Your task to perform on an android device: Open network settings Image 0: 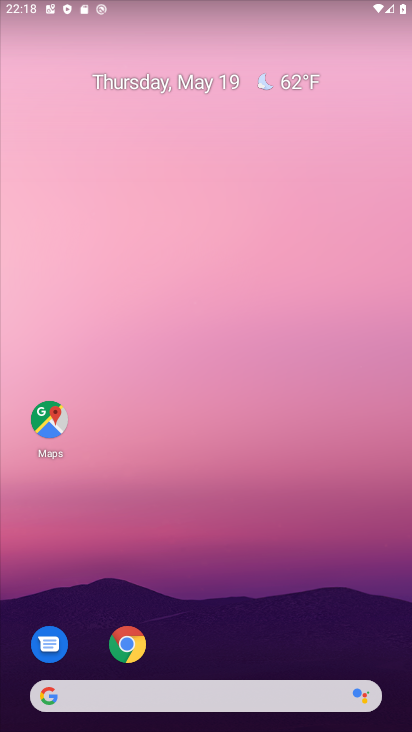
Step 0: drag from (252, 641) to (151, 168)
Your task to perform on an android device: Open network settings Image 1: 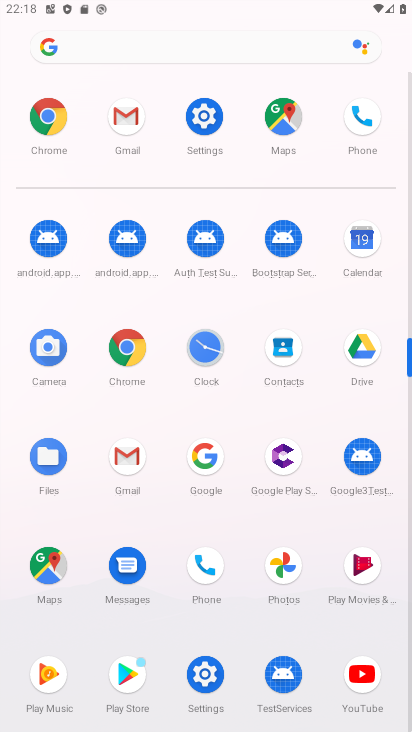
Step 1: click (199, 119)
Your task to perform on an android device: Open network settings Image 2: 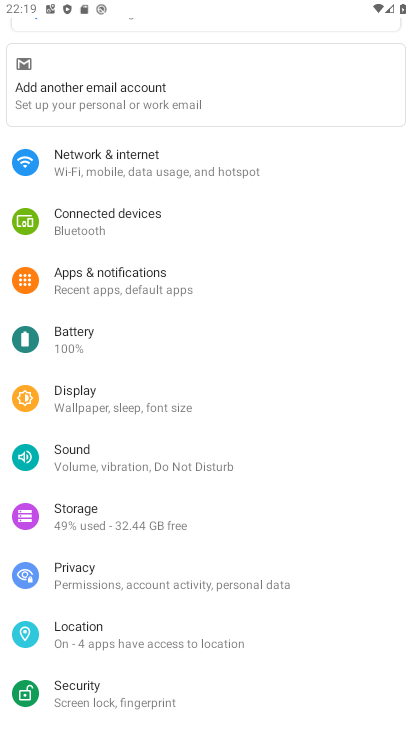
Step 2: click (97, 169)
Your task to perform on an android device: Open network settings Image 3: 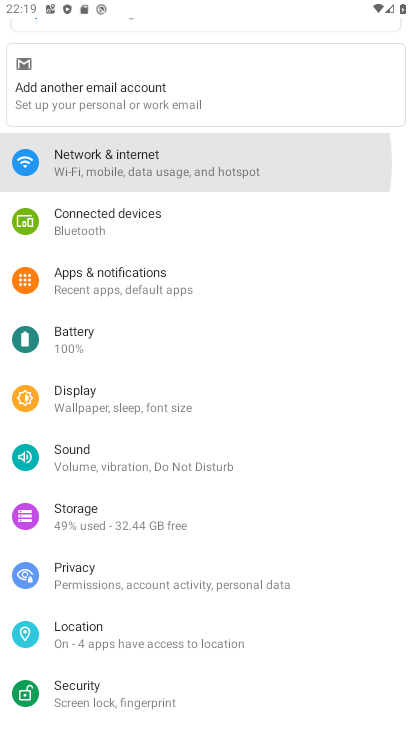
Step 3: click (97, 169)
Your task to perform on an android device: Open network settings Image 4: 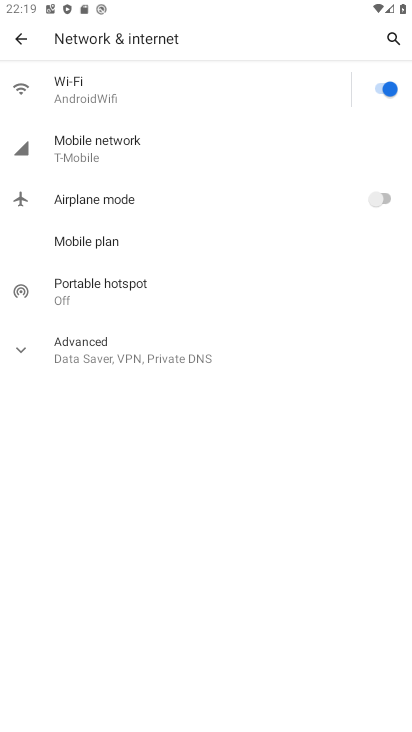
Step 4: task complete